Your task to perform on an android device: open app "Truecaller" (install if not already installed) and enter user name: "coauthor@gmail.com" and password: "quadrangle" Image 0: 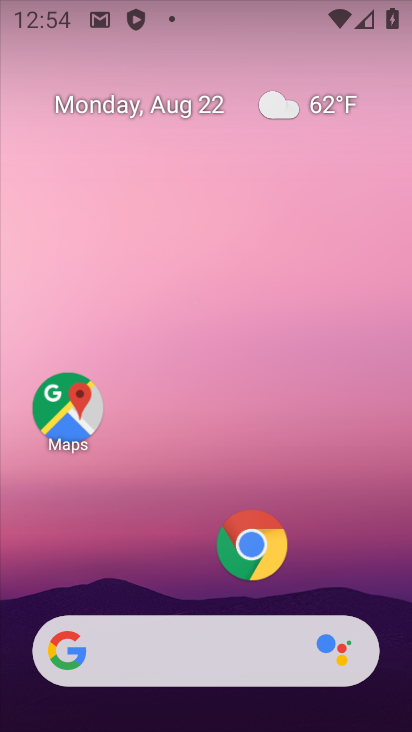
Step 0: drag from (178, 606) to (323, 85)
Your task to perform on an android device: open app "Truecaller" (install if not already installed) and enter user name: "coauthor@gmail.com" and password: "quadrangle" Image 1: 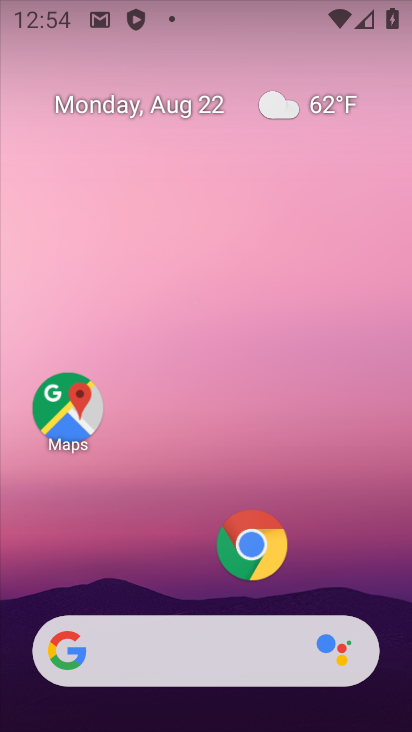
Step 1: drag from (180, 486) to (248, 19)
Your task to perform on an android device: open app "Truecaller" (install if not already installed) and enter user name: "coauthor@gmail.com" and password: "quadrangle" Image 2: 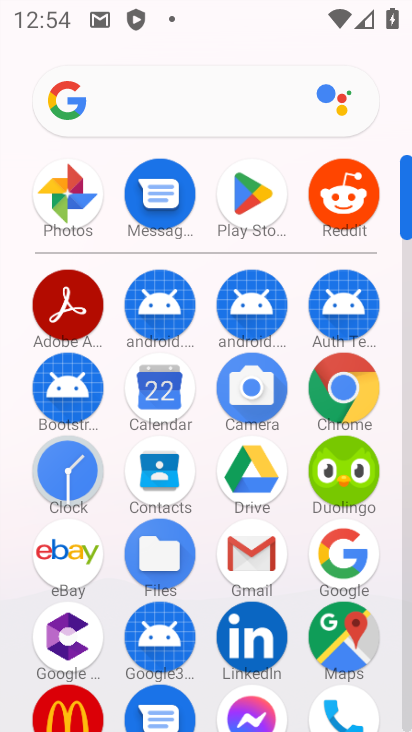
Step 2: click (260, 223)
Your task to perform on an android device: open app "Truecaller" (install if not already installed) and enter user name: "coauthor@gmail.com" and password: "quadrangle" Image 3: 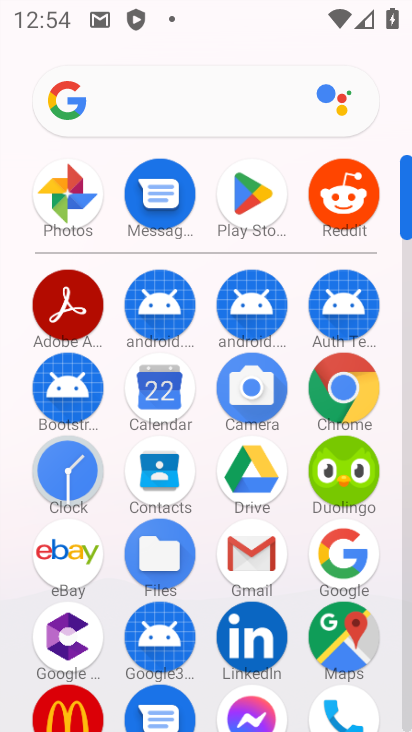
Step 3: click (259, 195)
Your task to perform on an android device: open app "Truecaller" (install if not already installed) and enter user name: "coauthor@gmail.com" and password: "quadrangle" Image 4: 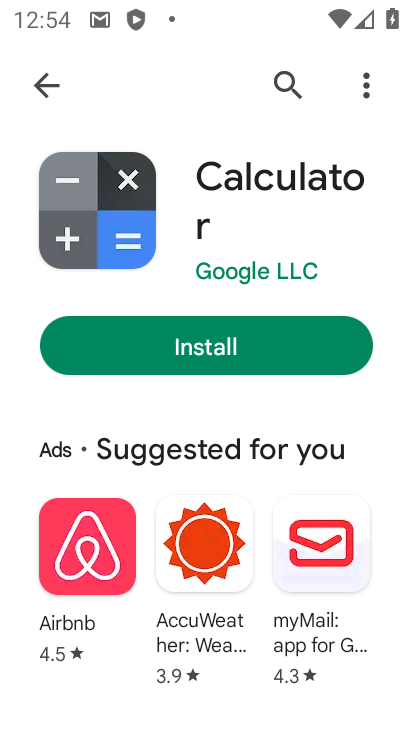
Step 4: click (290, 90)
Your task to perform on an android device: open app "Truecaller" (install if not already installed) and enter user name: "coauthor@gmail.com" and password: "quadrangle" Image 5: 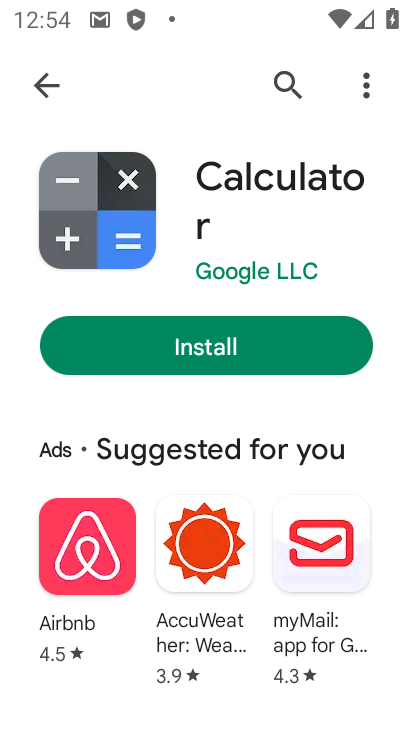
Step 5: click (285, 68)
Your task to perform on an android device: open app "Truecaller" (install if not already installed) and enter user name: "coauthor@gmail.com" and password: "quadrangle" Image 6: 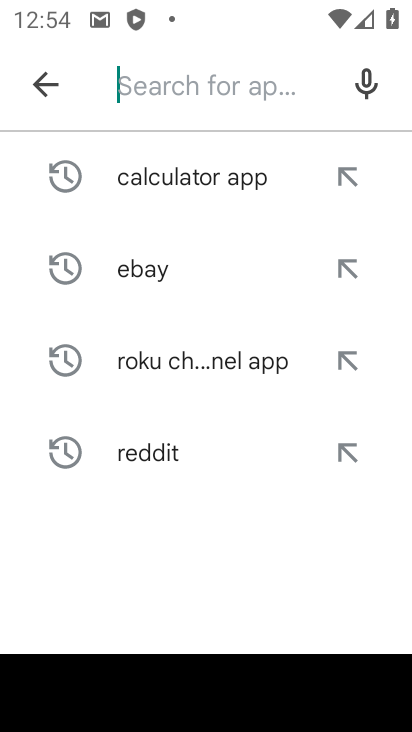
Step 6: click (160, 93)
Your task to perform on an android device: open app "Truecaller" (install if not already installed) and enter user name: "coauthor@gmail.com" and password: "quadrangle" Image 7: 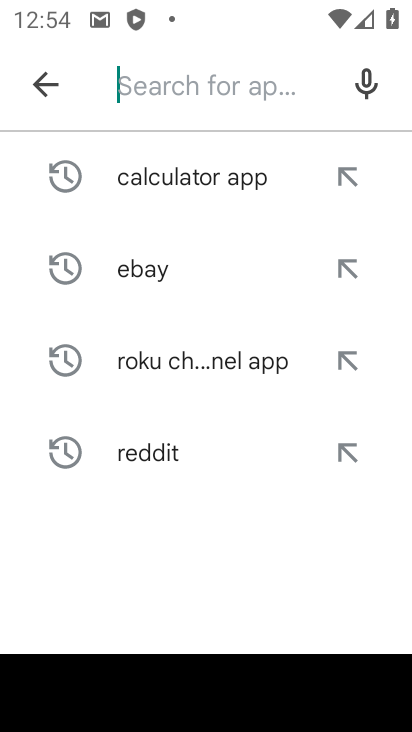
Step 7: click (173, 94)
Your task to perform on an android device: open app "Truecaller" (install if not already installed) and enter user name: "coauthor@gmail.com" and password: "quadrangle" Image 8: 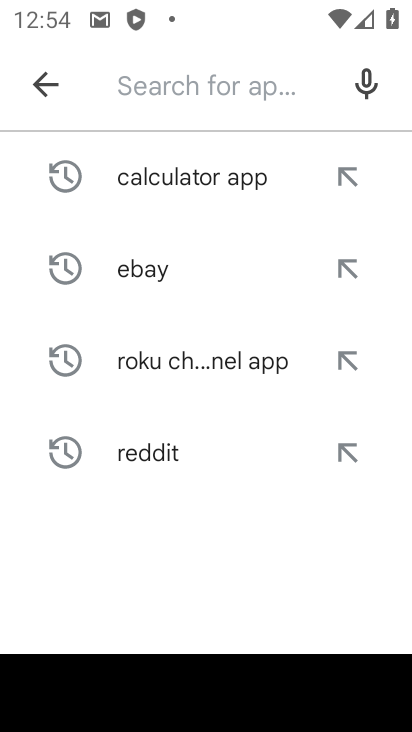
Step 8: type "Truecaller"
Your task to perform on an android device: open app "Truecaller" (install if not already installed) and enter user name: "coauthor@gmail.com" and password: "quadrangle" Image 9: 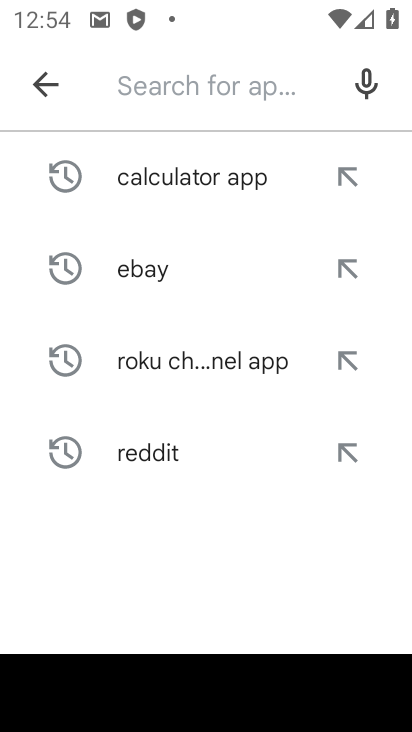
Step 9: type "Truecaller"
Your task to perform on an android device: open app "Truecaller" (install if not already installed) and enter user name: "coauthor@gmail.com" and password: "quadrangle" Image 10: 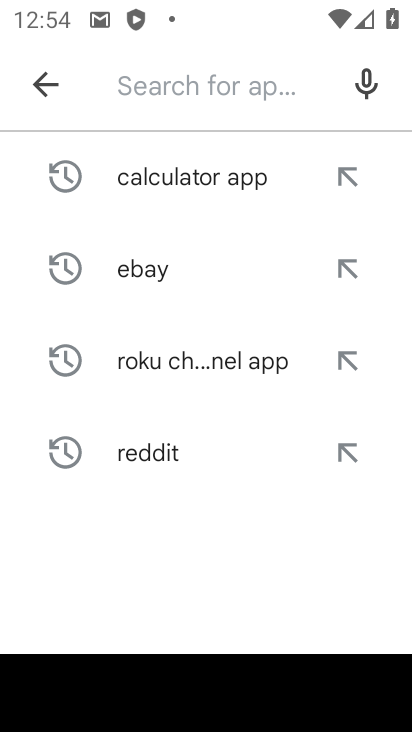
Step 10: click (200, 602)
Your task to perform on an android device: open app "Truecaller" (install if not already installed) and enter user name: "coauthor@gmail.com" and password: "quadrangle" Image 11: 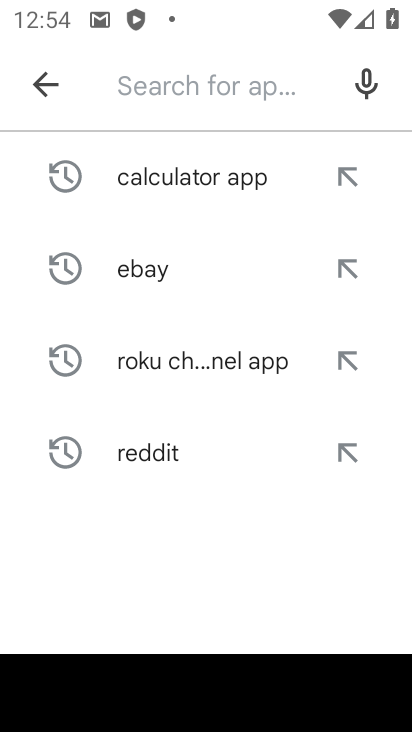
Step 11: click (214, 566)
Your task to perform on an android device: open app "Truecaller" (install if not already installed) and enter user name: "coauthor@gmail.com" and password: "quadrangle" Image 12: 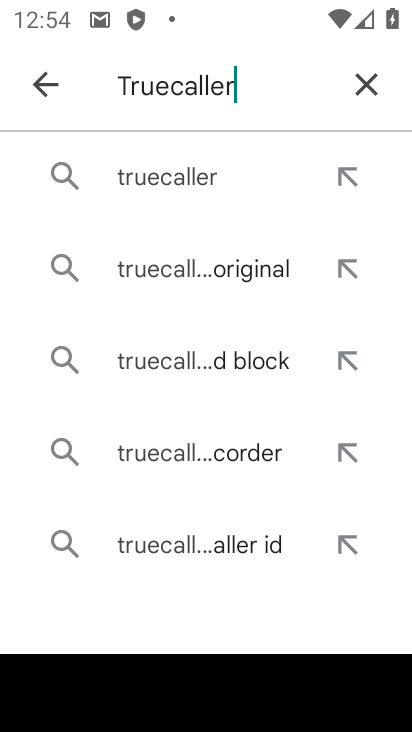
Step 12: click (150, 161)
Your task to perform on an android device: open app "Truecaller" (install if not already installed) and enter user name: "coauthor@gmail.com" and password: "quadrangle" Image 13: 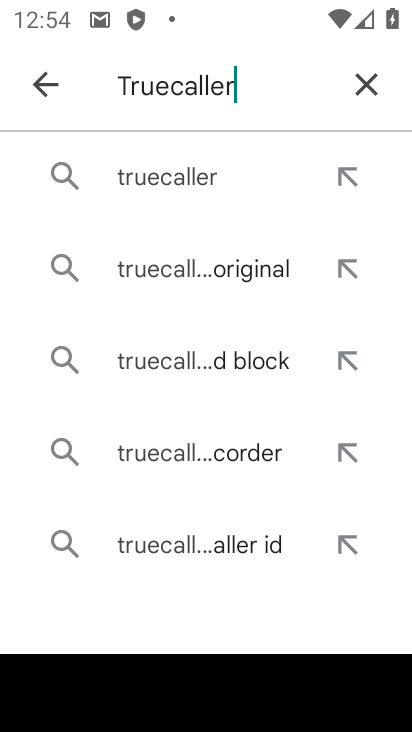
Step 13: click (183, 180)
Your task to perform on an android device: open app "Truecaller" (install if not already installed) and enter user name: "coauthor@gmail.com" and password: "quadrangle" Image 14: 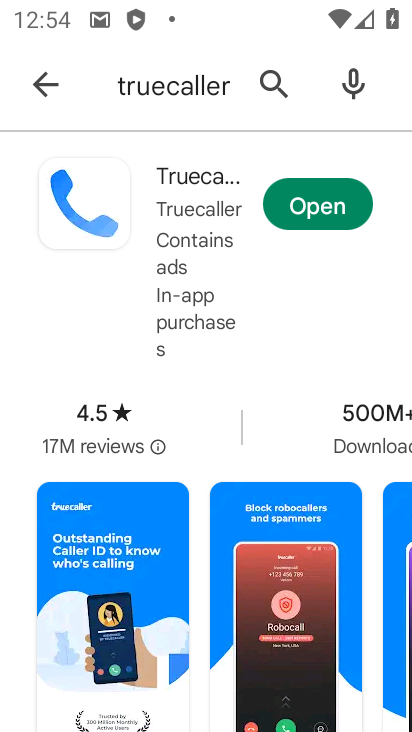
Step 14: click (303, 195)
Your task to perform on an android device: open app "Truecaller" (install if not already installed) and enter user name: "coauthor@gmail.com" and password: "quadrangle" Image 15: 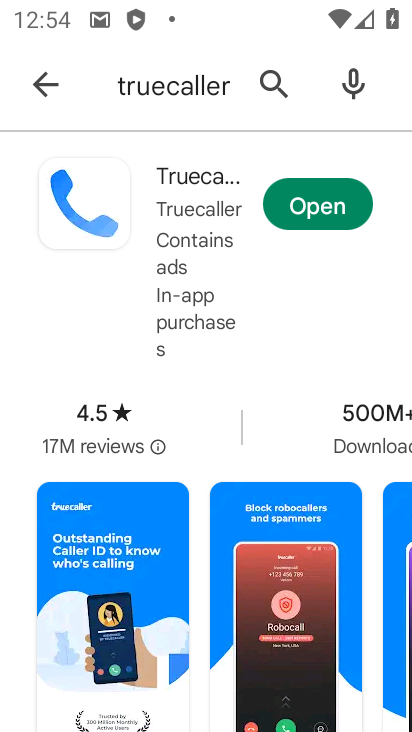
Step 15: click (330, 216)
Your task to perform on an android device: open app "Truecaller" (install if not already installed) and enter user name: "coauthor@gmail.com" and password: "quadrangle" Image 16: 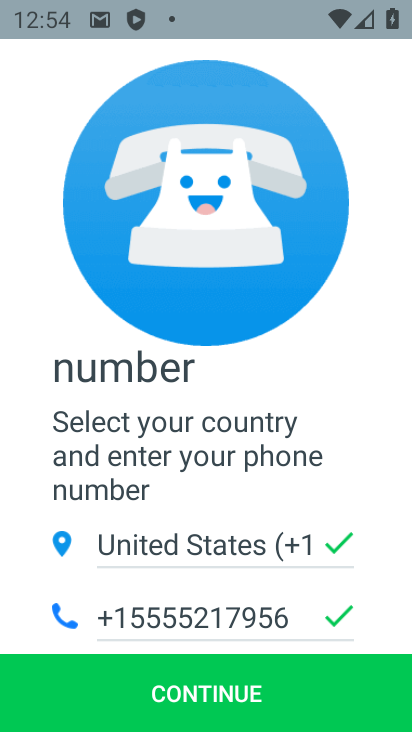
Step 16: click (309, 191)
Your task to perform on an android device: open app "Truecaller" (install if not already installed) and enter user name: "coauthor@gmail.com" and password: "quadrangle" Image 17: 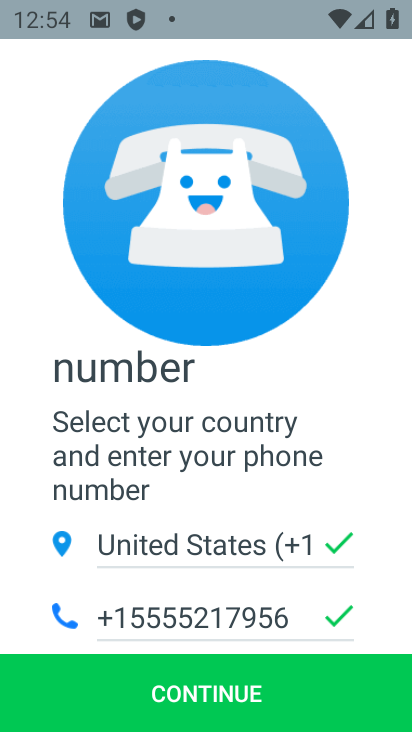
Step 17: task complete
Your task to perform on an android device: open app "Truecaller" (install if not already installed) and enter user name: "coauthor@gmail.com" and password: "quadrangle" Image 18: 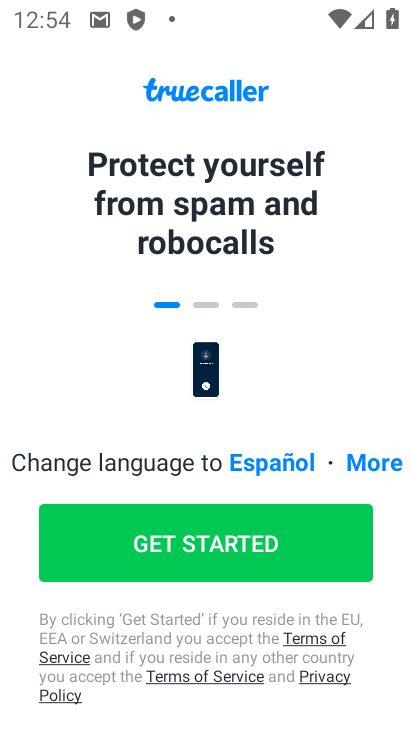
Step 18: click (144, 546)
Your task to perform on an android device: open app "Truecaller" (install if not already installed) and enter user name: "coauthor@gmail.com" and password: "quadrangle" Image 19: 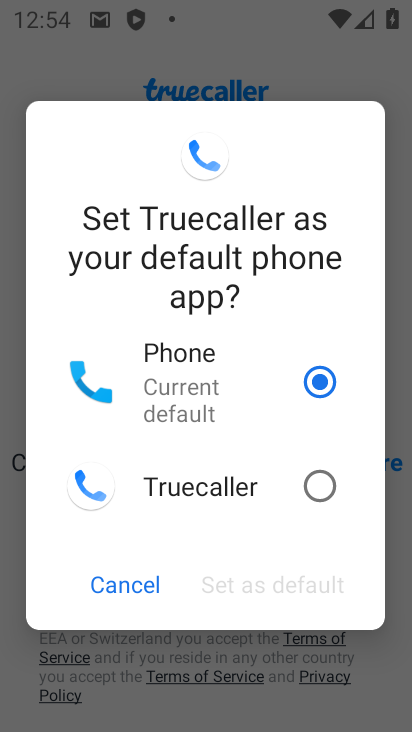
Step 19: click (286, 509)
Your task to perform on an android device: open app "Truecaller" (install if not already installed) and enter user name: "coauthor@gmail.com" and password: "quadrangle" Image 20: 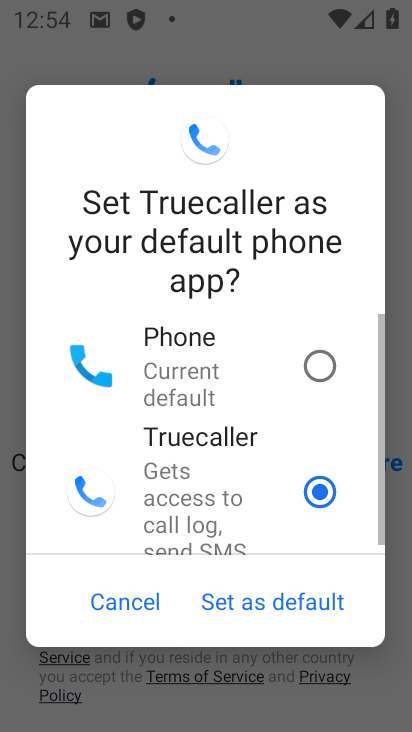
Step 20: click (253, 585)
Your task to perform on an android device: open app "Truecaller" (install if not already installed) and enter user name: "coauthor@gmail.com" and password: "quadrangle" Image 21: 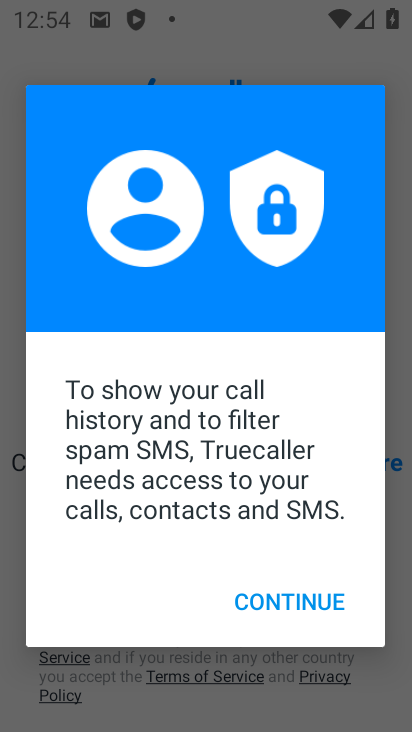
Step 21: drag from (226, 559) to (299, 617)
Your task to perform on an android device: open app "Truecaller" (install if not already installed) and enter user name: "coauthor@gmail.com" and password: "quadrangle" Image 22: 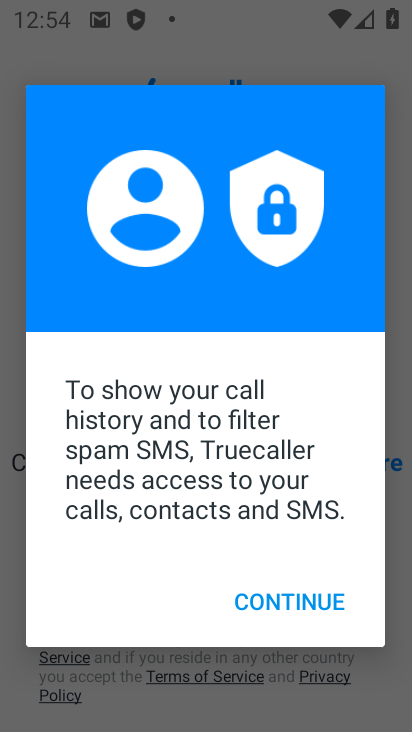
Step 22: click (291, 598)
Your task to perform on an android device: open app "Truecaller" (install if not already installed) and enter user name: "coauthor@gmail.com" and password: "quadrangle" Image 23: 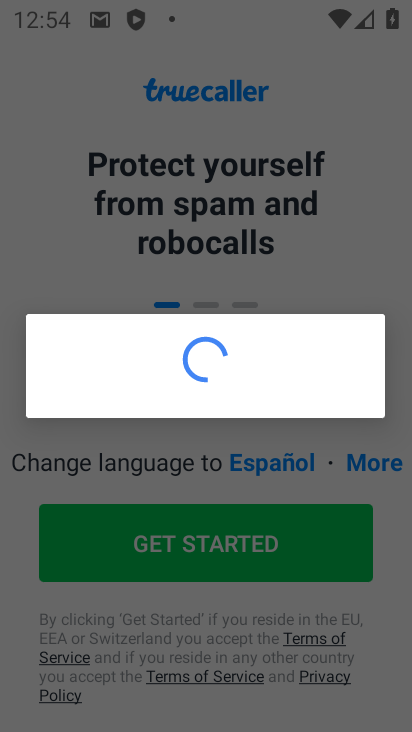
Step 23: click (239, 561)
Your task to perform on an android device: open app "Truecaller" (install if not already installed) and enter user name: "coauthor@gmail.com" and password: "quadrangle" Image 24: 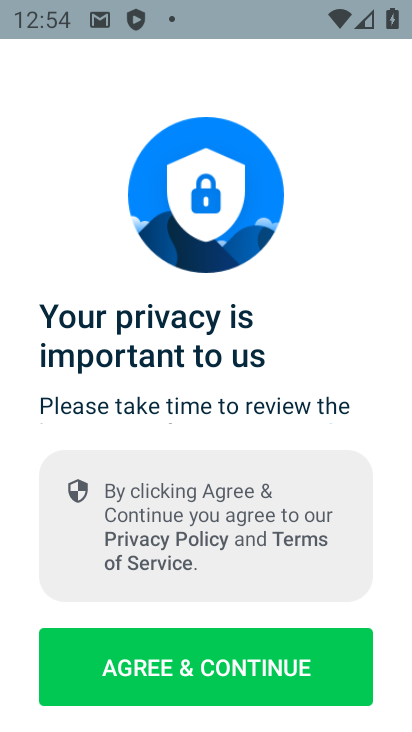
Step 24: click (225, 638)
Your task to perform on an android device: open app "Truecaller" (install if not already installed) and enter user name: "coauthor@gmail.com" and password: "quadrangle" Image 25: 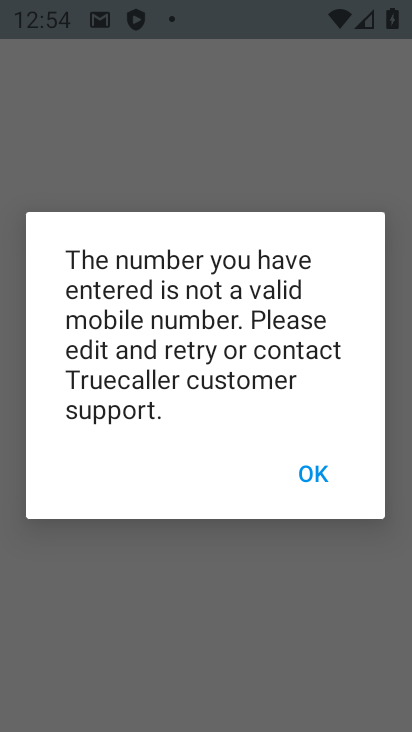
Step 25: click (349, 483)
Your task to perform on an android device: open app "Truecaller" (install if not already installed) and enter user name: "coauthor@gmail.com" and password: "quadrangle" Image 26: 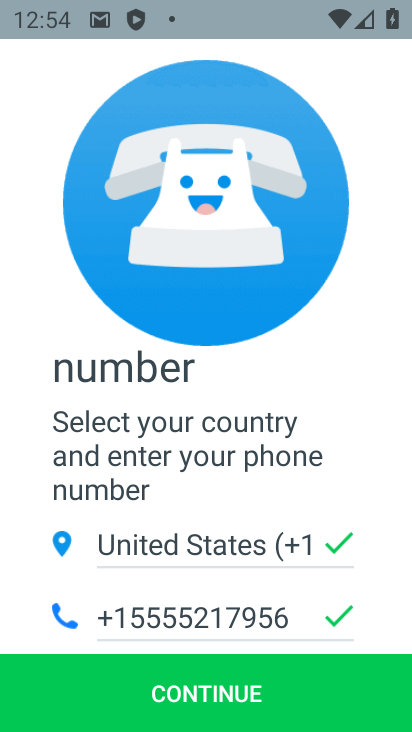
Step 26: task complete